Your task to perform on an android device: Show me the alarms in the clock app Image 0: 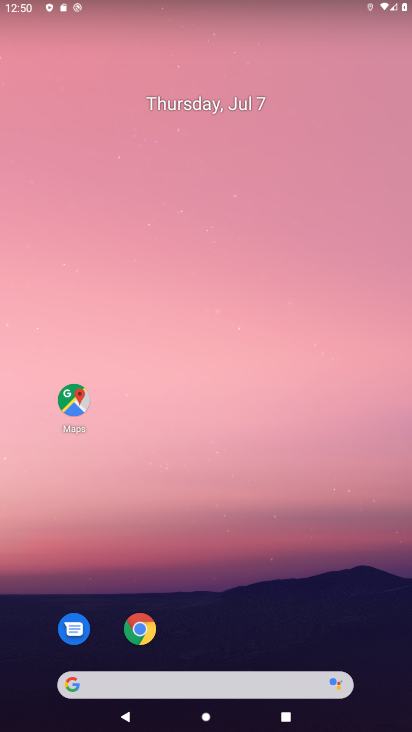
Step 0: drag from (204, 624) to (301, 116)
Your task to perform on an android device: Show me the alarms in the clock app Image 1: 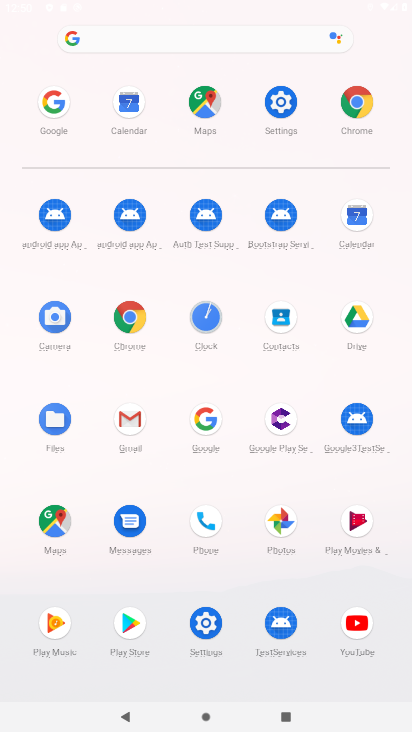
Step 1: click (202, 323)
Your task to perform on an android device: Show me the alarms in the clock app Image 2: 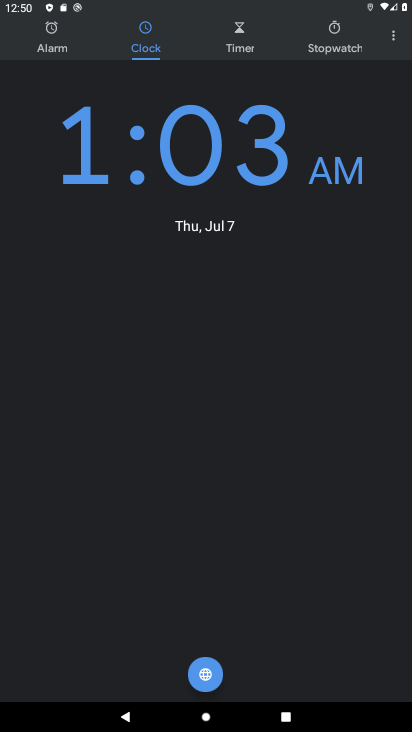
Step 2: click (385, 40)
Your task to perform on an android device: Show me the alarms in the clock app Image 3: 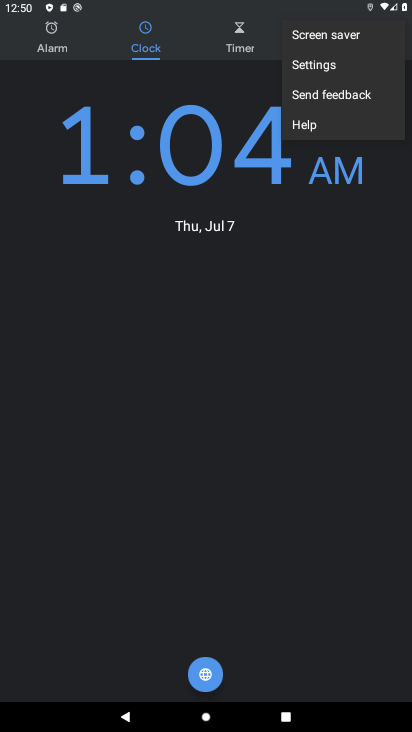
Step 3: click (49, 41)
Your task to perform on an android device: Show me the alarms in the clock app Image 4: 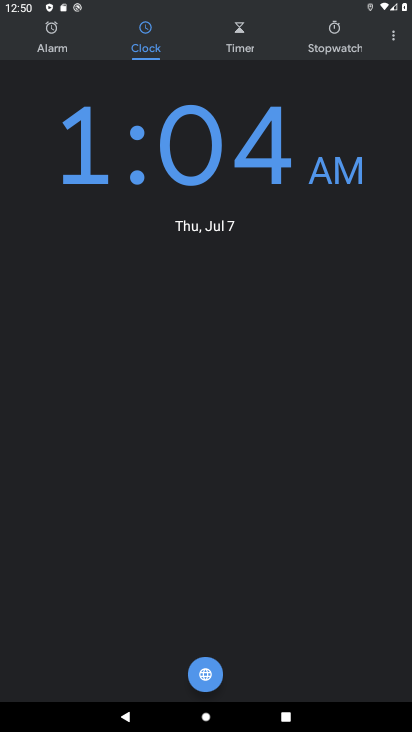
Step 4: click (57, 45)
Your task to perform on an android device: Show me the alarms in the clock app Image 5: 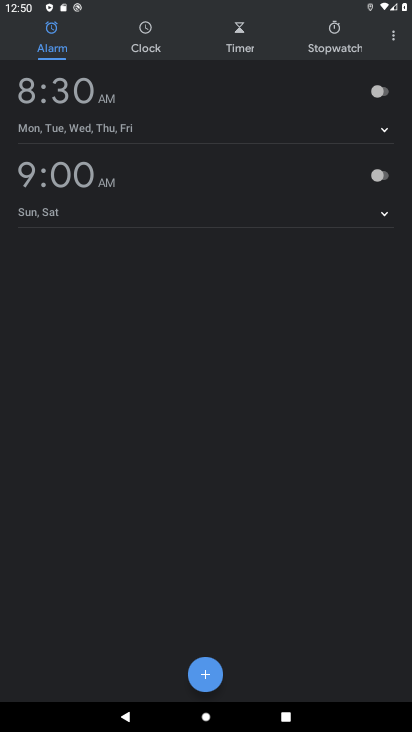
Step 5: task complete